Your task to perform on an android device: Search for seafood restaurants on Google Maps Image 0: 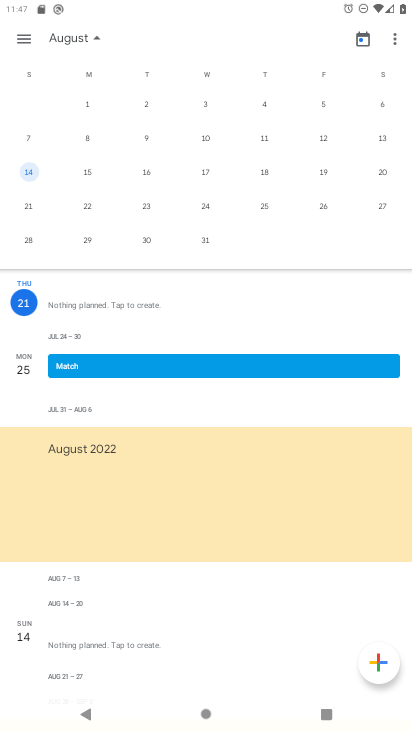
Step 0: press home button
Your task to perform on an android device: Search for seafood restaurants on Google Maps Image 1: 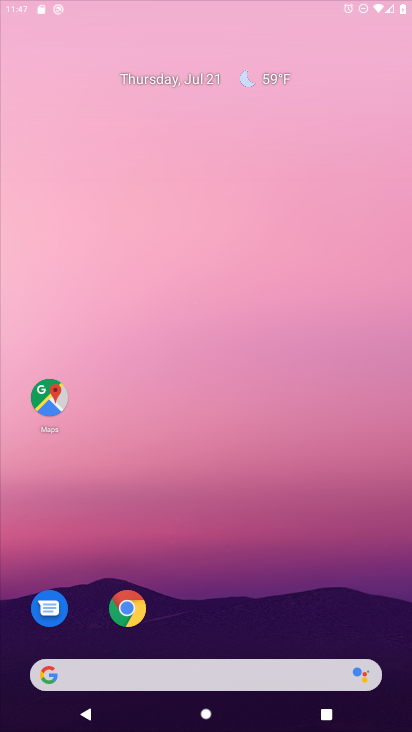
Step 1: drag from (386, 676) to (232, 115)
Your task to perform on an android device: Search for seafood restaurants on Google Maps Image 2: 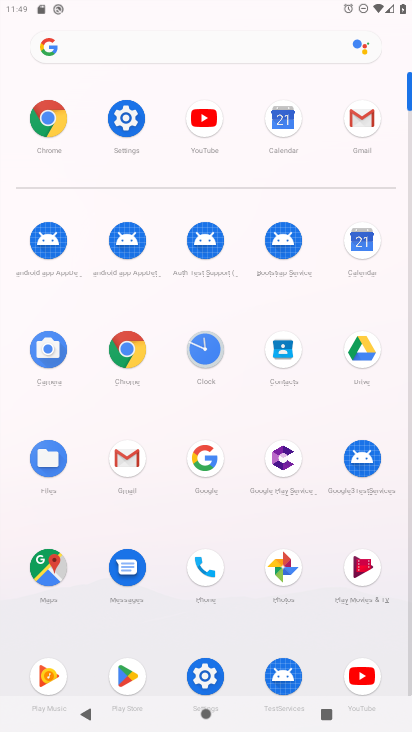
Step 2: click (40, 555)
Your task to perform on an android device: Search for seafood restaurants on Google Maps Image 3: 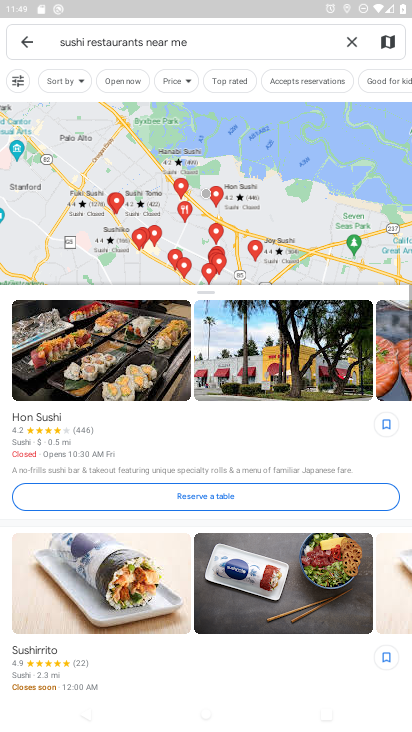
Step 3: click (351, 42)
Your task to perform on an android device: Search for seafood restaurants on Google Maps Image 4: 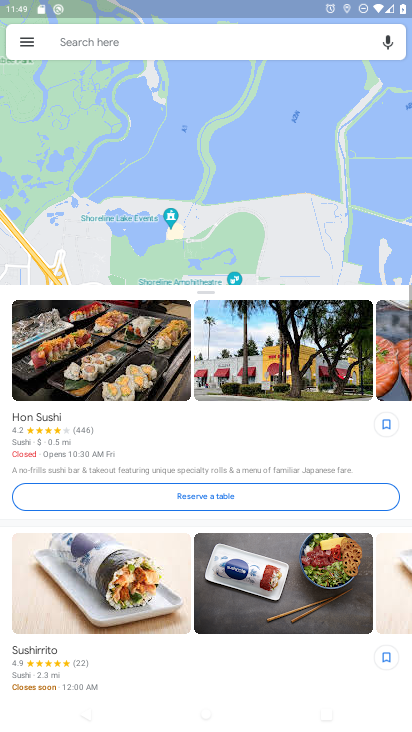
Step 4: click (128, 39)
Your task to perform on an android device: Search for seafood restaurants on Google Maps Image 5: 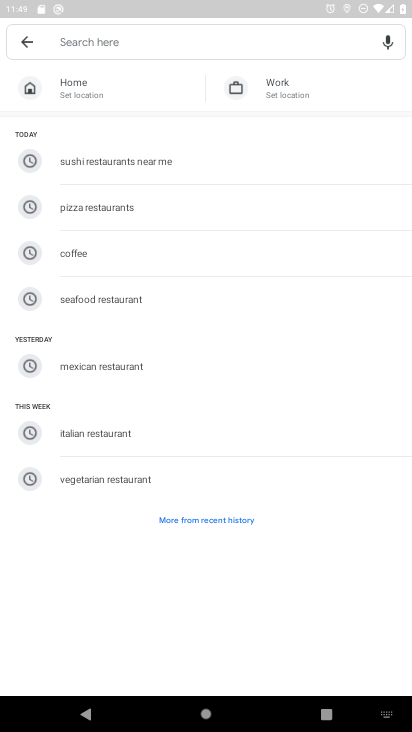
Step 5: click (78, 299)
Your task to perform on an android device: Search for seafood restaurants on Google Maps Image 6: 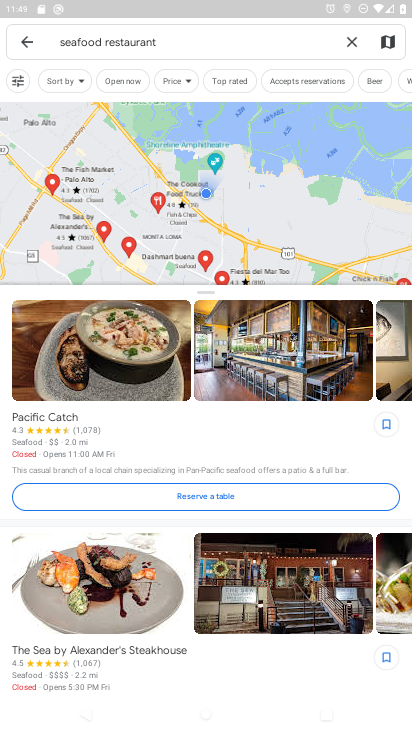
Step 6: task complete